Your task to perform on an android device: clear all cookies in the chrome app Image 0: 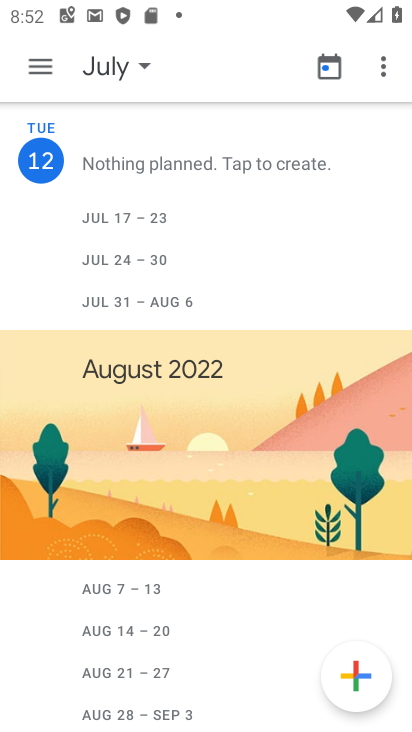
Step 0: press home button
Your task to perform on an android device: clear all cookies in the chrome app Image 1: 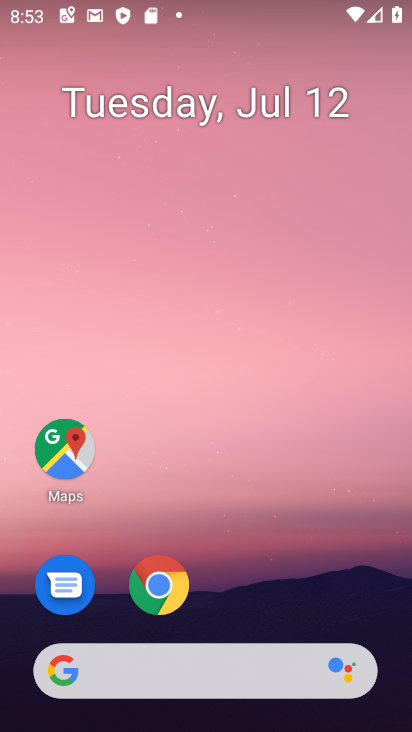
Step 1: click (167, 585)
Your task to perform on an android device: clear all cookies in the chrome app Image 2: 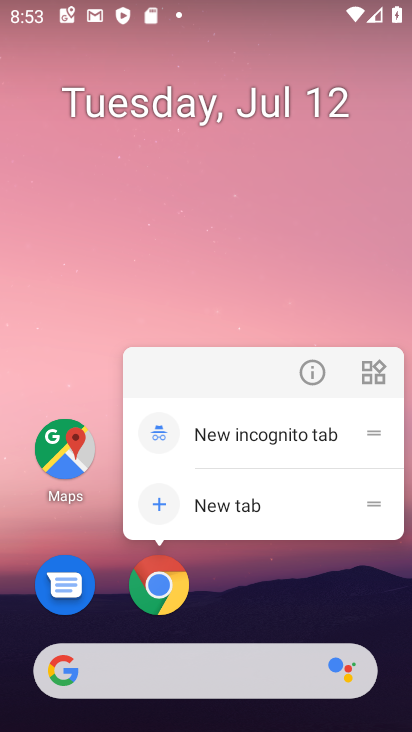
Step 2: click (167, 586)
Your task to perform on an android device: clear all cookies in the chrome app Image 3: 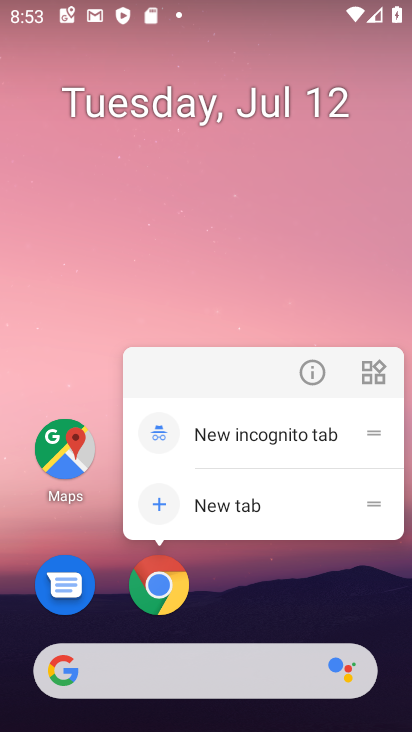
Step 3: click (167, 588)
Your task to perform on an android device: clear all cookies in the chrome app Image 4: 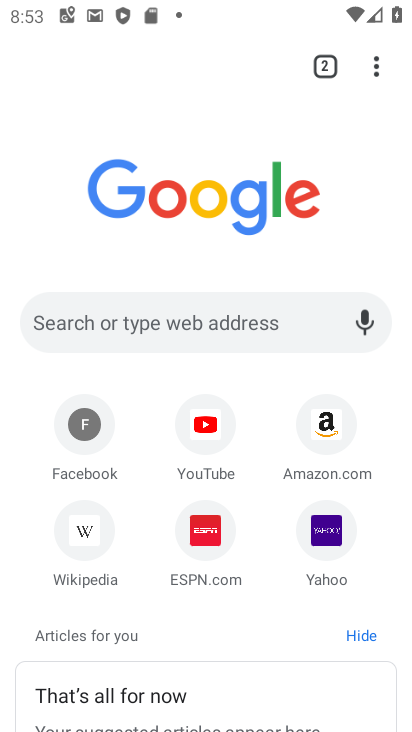
Step 4: click (375, 70)
Your task to perform on an android device: clear all cookies in the chrome app Image 5: 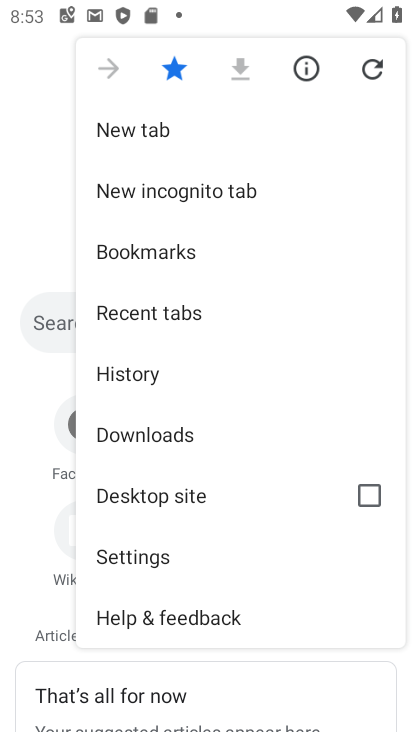
Step 5: click (155, 371)
Your task to perform on an android device: clear all cookies in the chrome app Image 6: 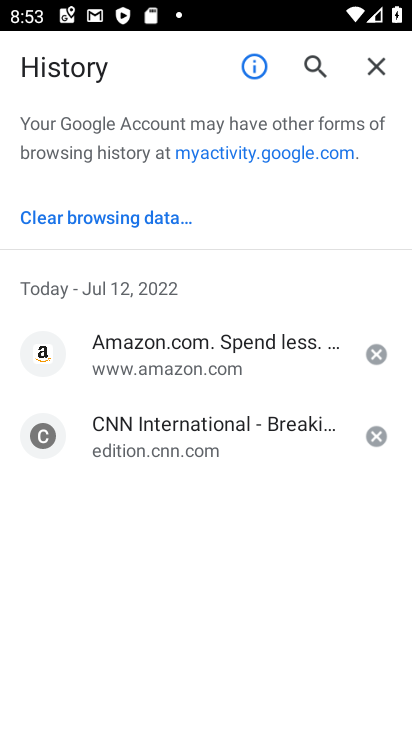
Step 6: click (146, 214)
Your task to perform on an android device: clear all cookies in the chrome app Image 7: 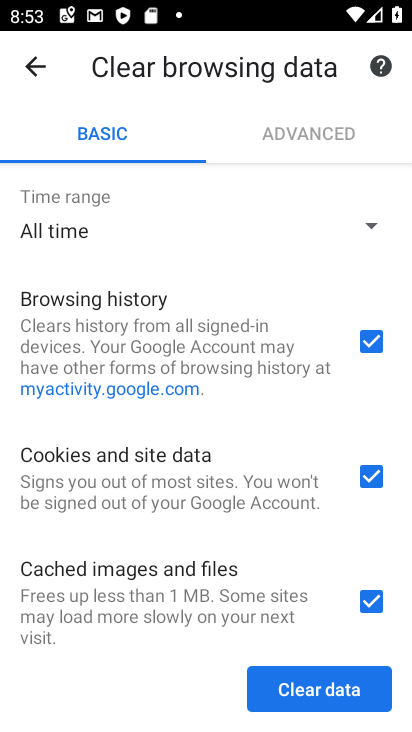
Step 7: click (373, 337)
Your task to perform on an android device: clear all cookies in the chrome app Image 8: 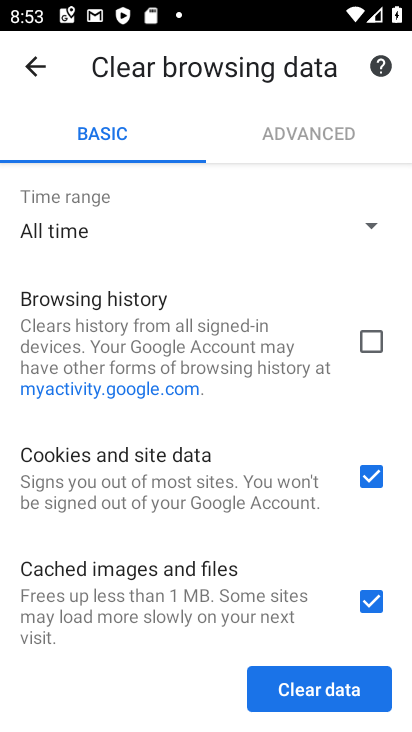
Step 8: click (368, 604)
Your task to perform on an android device: clear all cookies in the chrome app Image 9: 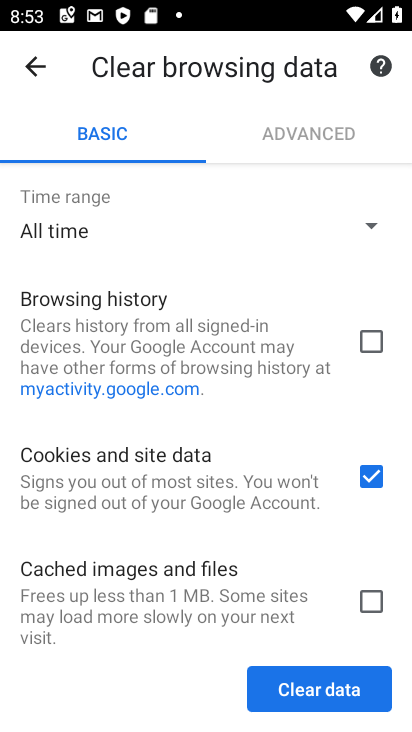
Step 9: click (349, 684)
Your task to perform on an android device: clear all cookies in the chrome app Image 10: 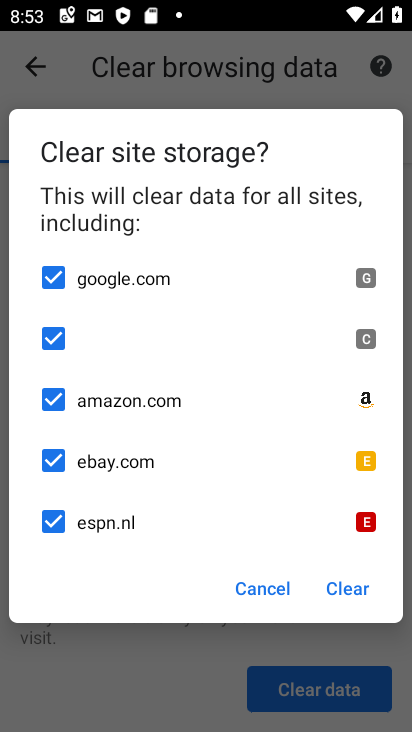
Step 10: click (349, 585)
Your task to perform on an android device: clear all cookies in the chrome app Image 11: 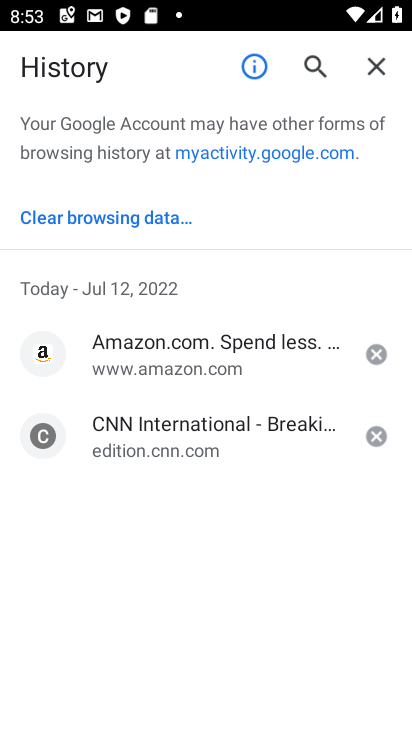
Step 11: task complete